Your task to perform on an android device: change the upload size in google photos Image 0: 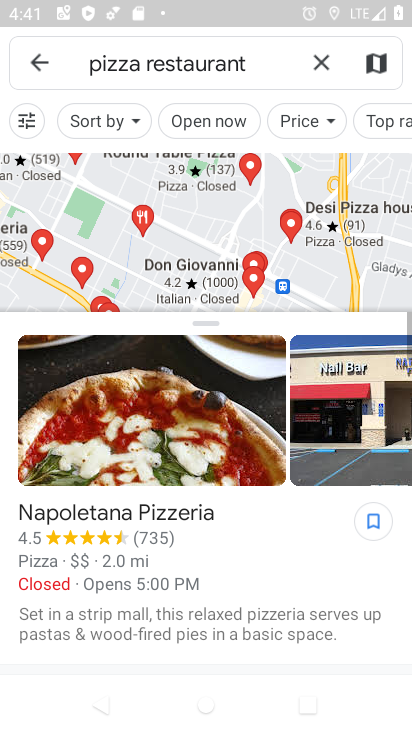
Step 0: press back button
Your task to perform on an android device: change the upload size in google photos Image 1: 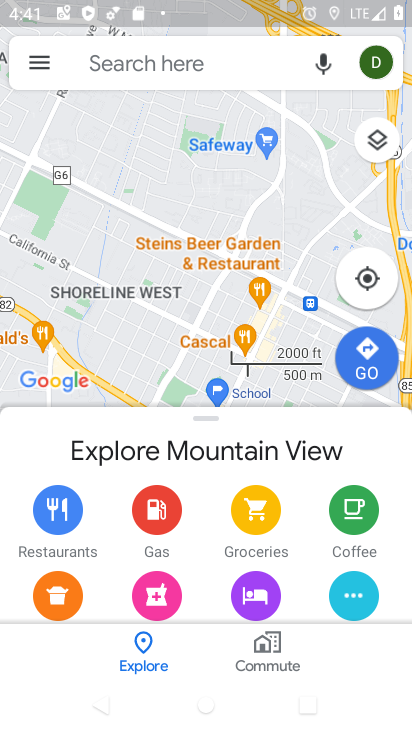
Step 1: press back button
Your task to perform on an android device: change the upload size in google photos Image 2: 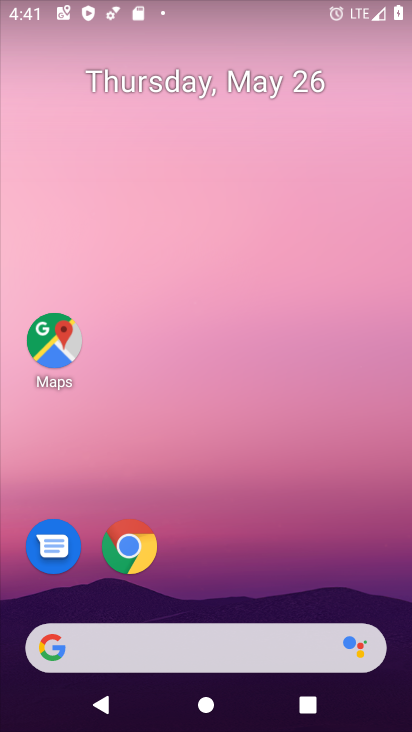
Step 2: drag from (254, 545) to (309, 71)
Your task to perform on an android device: change the upload size in google photos Image 3: 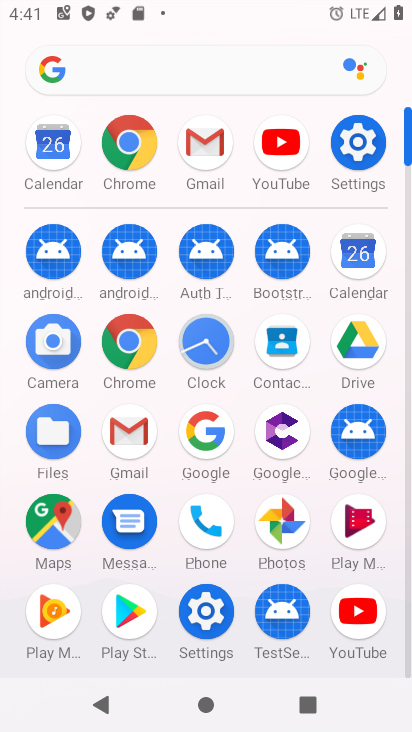
Step 3: click (283, 516)
Your task to perform on an android device: change the upload size in google photos Image 4: 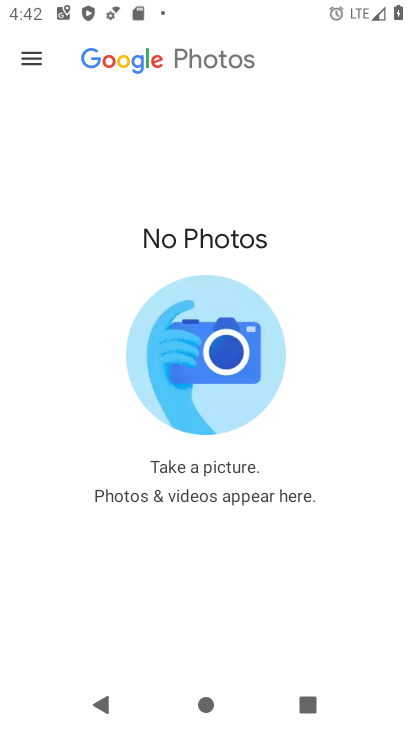
Step 4: click (29, 60)
Your task to perform on an android device: change the upload size in google photos Image 5: 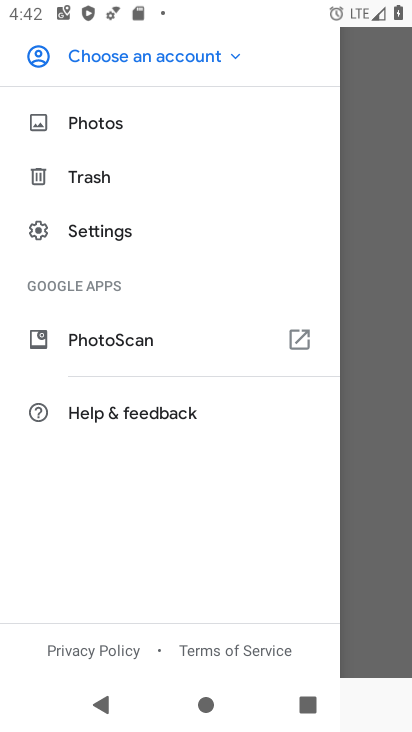
Step 5: click (116, 230)
Your task to perform on an android device: change the upload size in google photos Image 6: 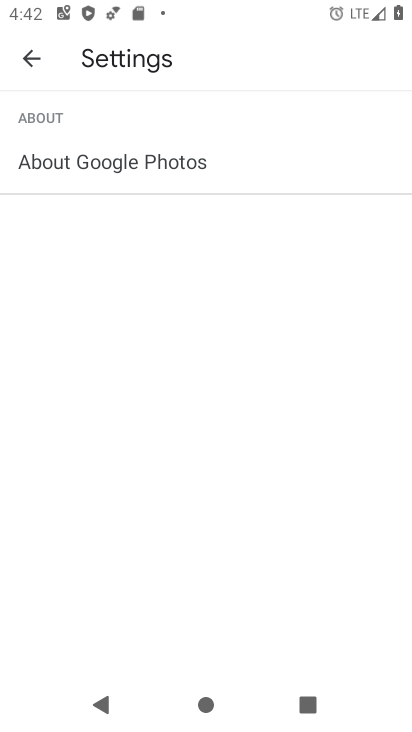
Step 6: click (23, 59)
Your task to perform on an android device: change the upload size in google photos Image 7: 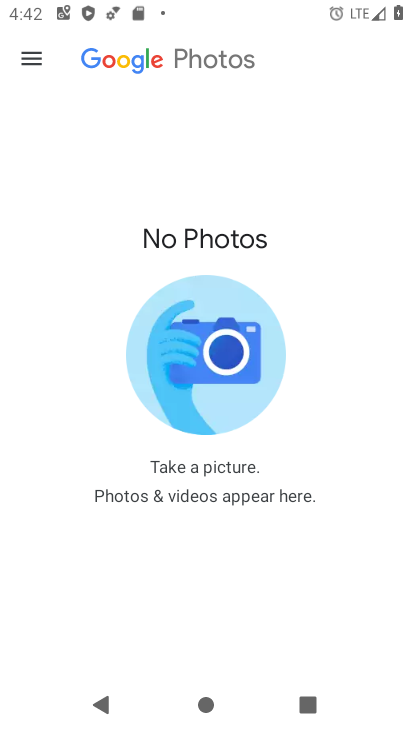
Step 7: click (30, 57)
Your task to perform on an android device: change the upload size in google photos Image 8: 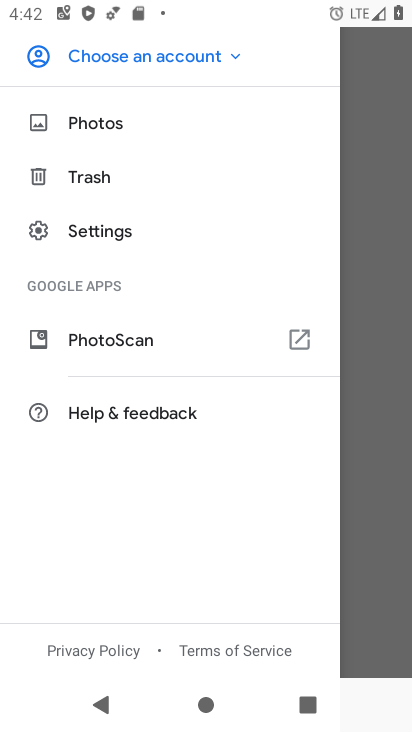
Step 8: click (120, 234)
Your task to perform on an android device: change the upload size in google photos Image 9: 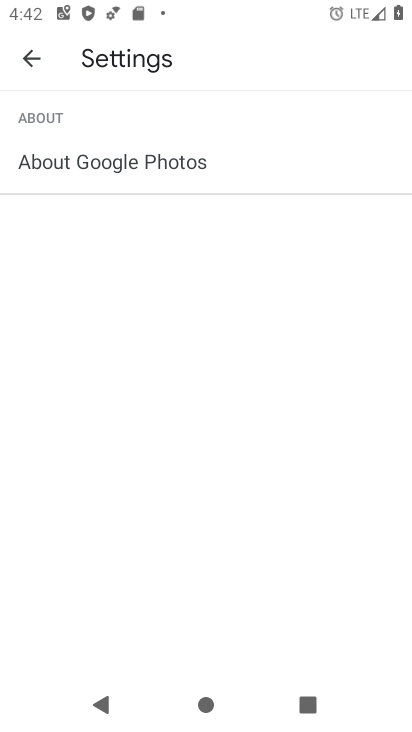
Step 9: task complete